Your task to perform on an android device: toggle notifications settings in the gmail app Image 0: 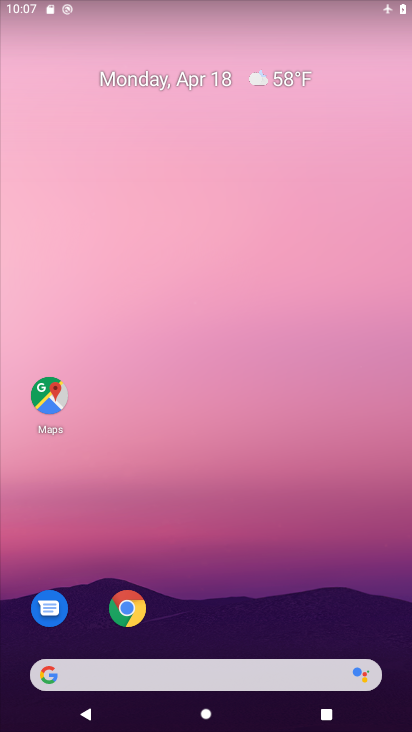
Step 0: drag from (350, 555) to (292, 117)
Your task to perform on an android device: toggle notifications settings in the gmail app Image 1: 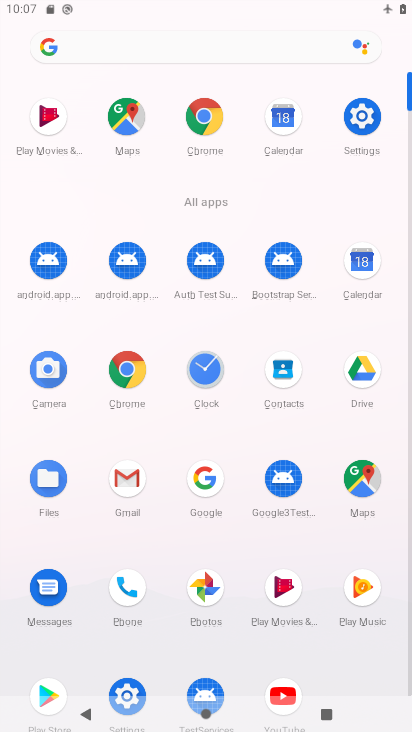
Step 1: click (131, 490)
Your task to perform on an android device: toggle notifications settings in the gmail app Image 2: 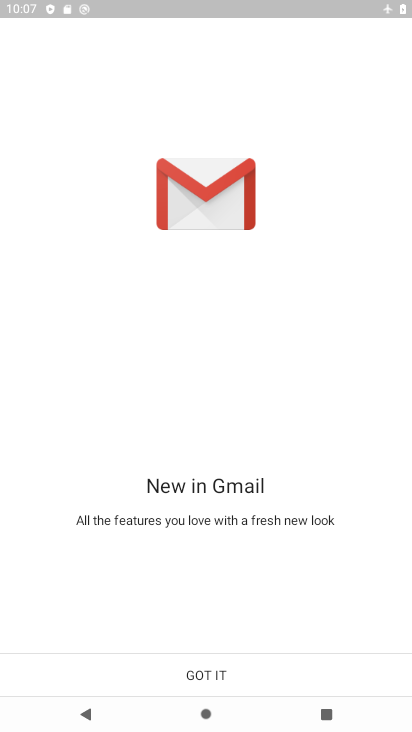
Step 2: click (196, 686)
Your task to perform on an android device: toggle notifications settings in the gmail app Image 3: 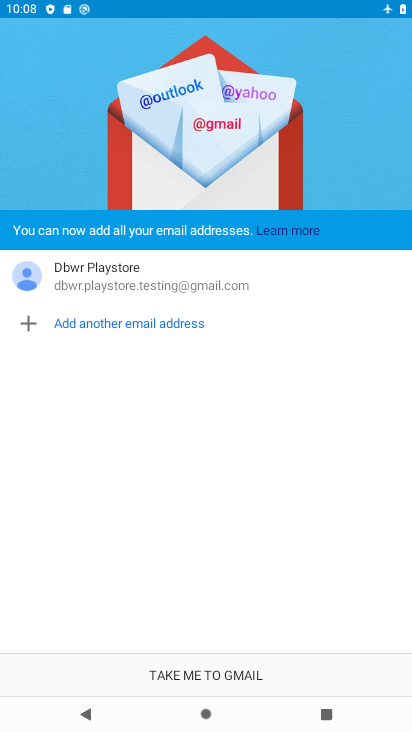
Step 3: click (226, 664)
Your task to perform on an android device: toggle notifications settings in the gmail app Image 4: 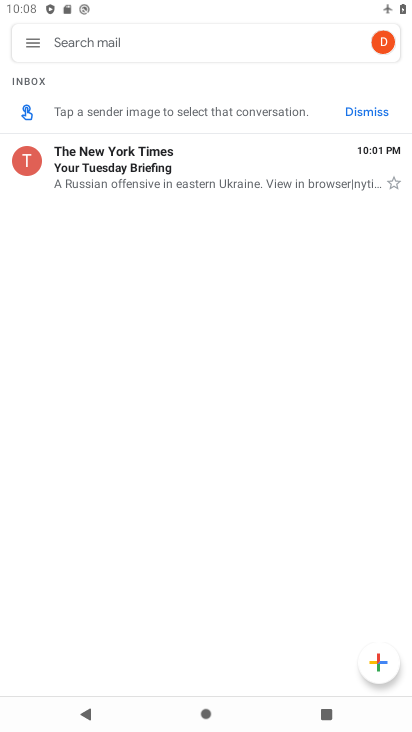
Step 4: click (30, 49)
Your task to perform on an android device: toggle notifications settings in the gmail app Image 5: 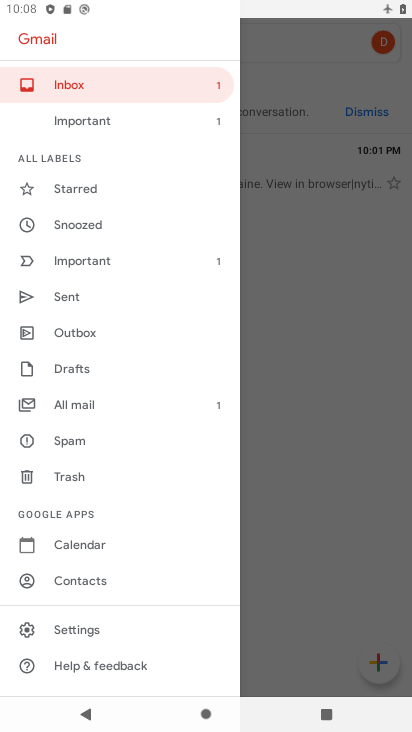
Step 5: click (123, 623)
Your task to perform on an android device: toggle notifications settings in the gmail app Image 6: 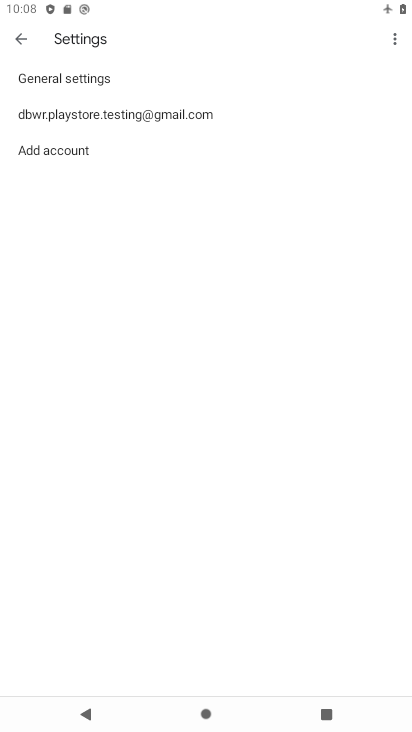
Step 6: click (198, 109)
Your task to perform on an android device: toggle notifications settings in the gmail app Image 7: 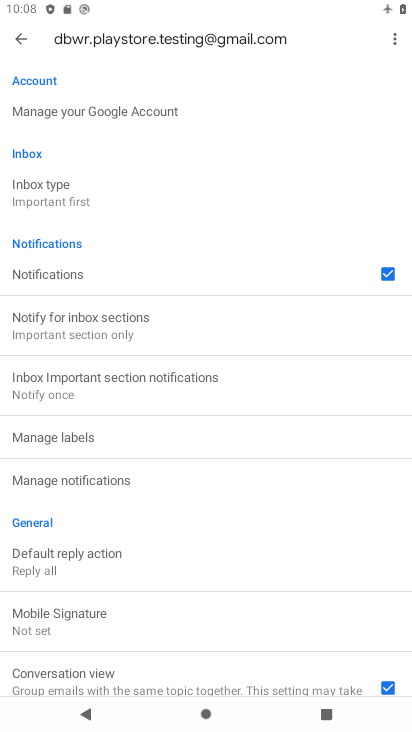
Step 7: drag from (181, 609) to (192, 267)
Your task to perform on an android device: toggle notifications settings in the gmail app Image 8: 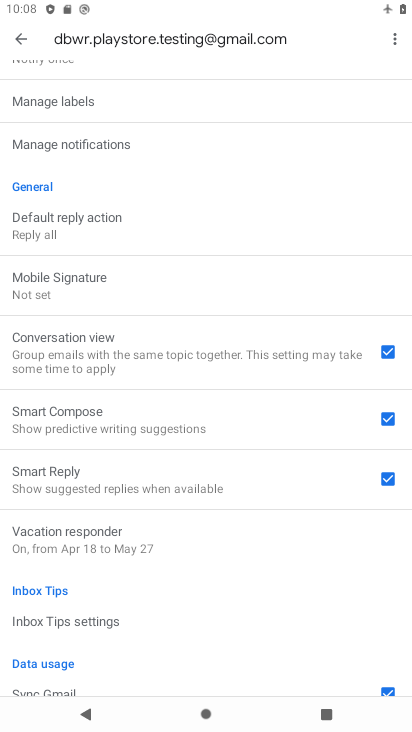
Step 8: click (182, 147)
Your task to perform on an android device: toggle notifications settings in the gmail app Image 9: 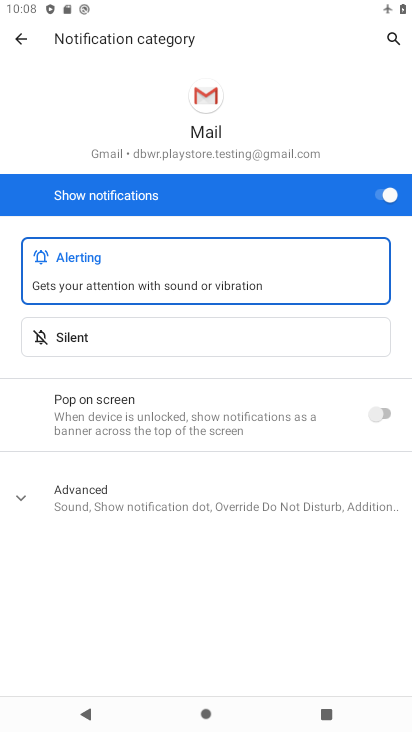
Step 9: click (357, 342)
Your task to perform on an android device: toggle notifications settings in the gmail app Image 10: 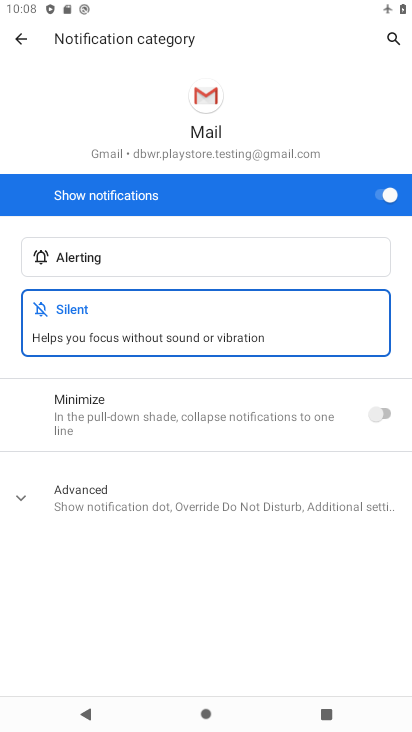
Step 10: click (385, 415)
Your task to perform on an android device: toggle notifications settings in the gmail app Image 11: 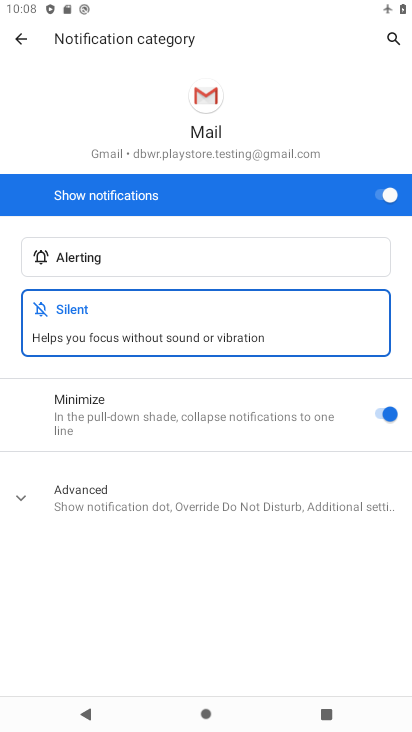
Step 11: task complete